Your task to perform on an android device: Go to CNN.com Image 0: 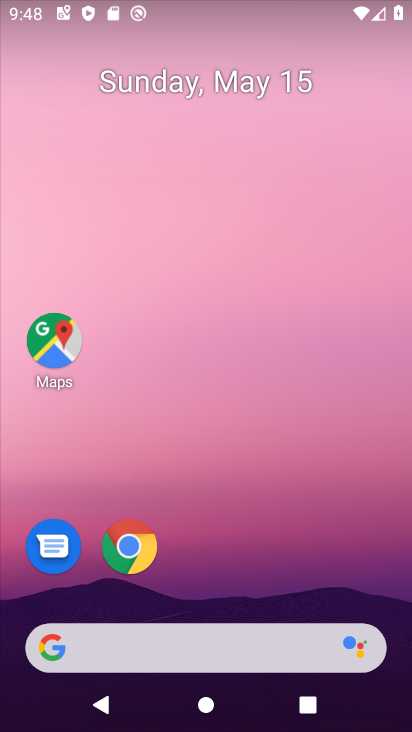
Step 0: click (127, 542)
Your task to perform on an android device: Go to CNN.com Image 1: 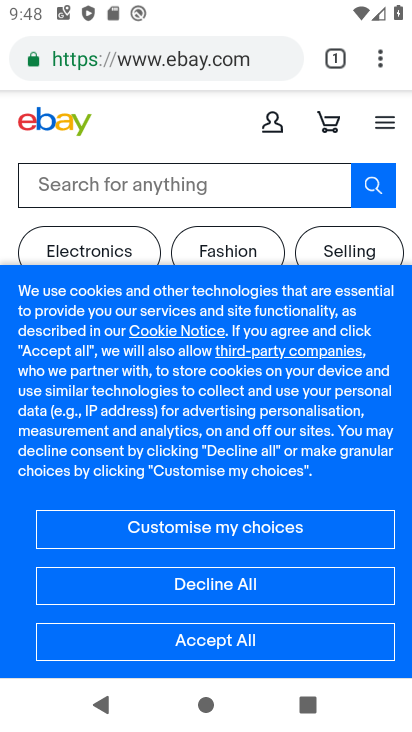
Step 1: click (219, 61)
Your task to perform on an android device: Go to CNN.com Image 2: 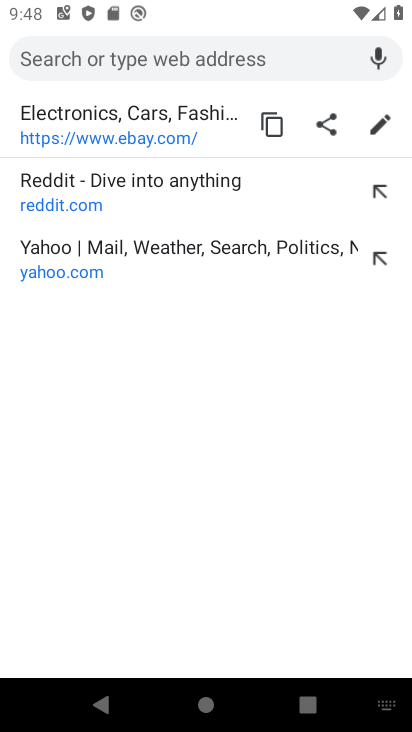
Step 2: type "cnn.com"
Your task to perform on an android device: Go to CNN.com Image 3: 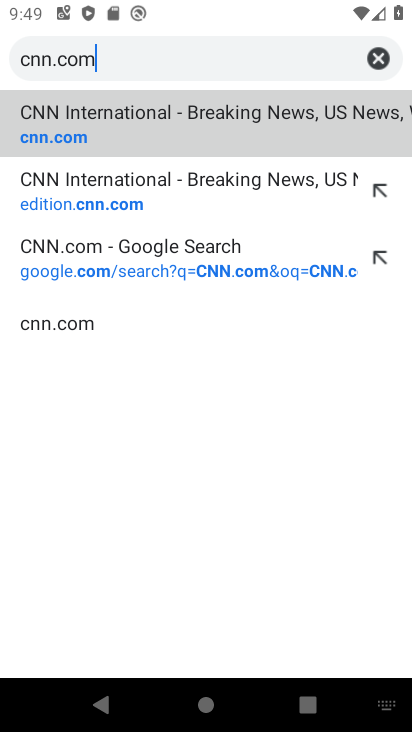
Step 3: click (41, 143)
Your task to perform on an android device: Go to CNN.com Image 4: 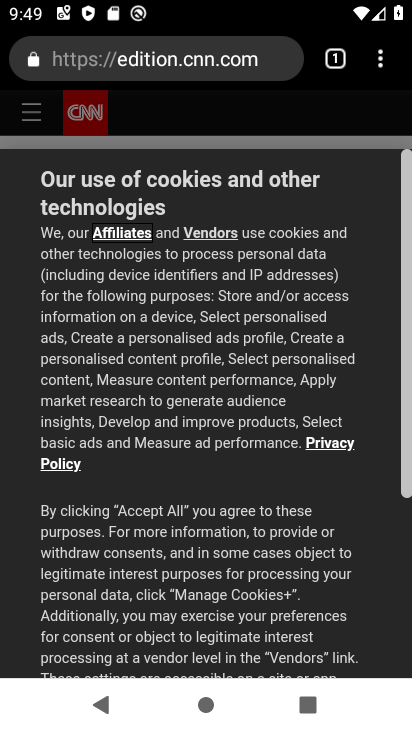
Step 4: task complete